Your task to perform on an android device: Open maps Image 0: 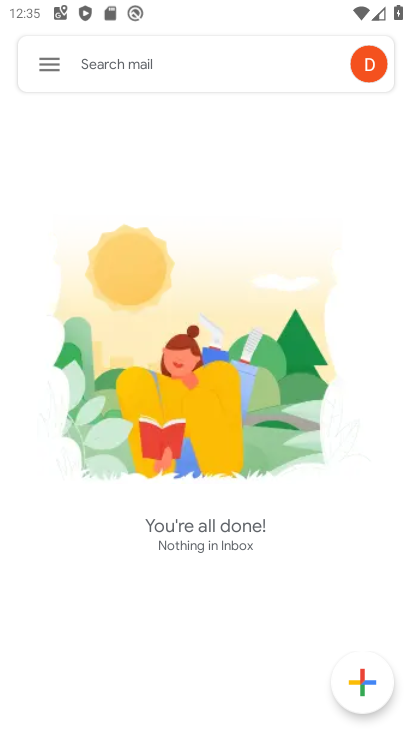
Step 0: press home button
Your task to perform on an android device: Open maps Image 1: 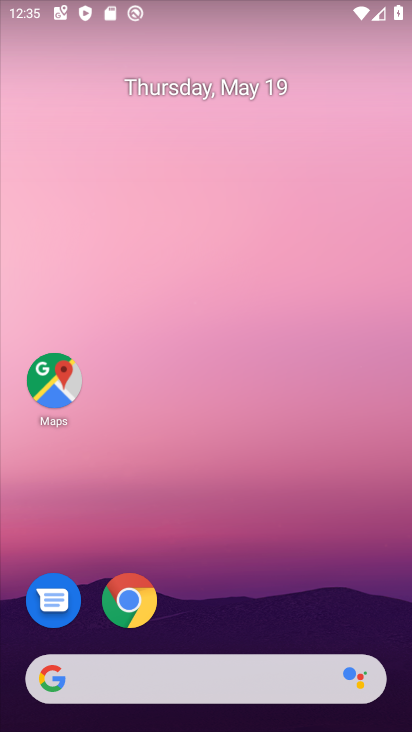
Step 1: click (52, 379)
Your task to perform on an android device: Open maps Image 2: 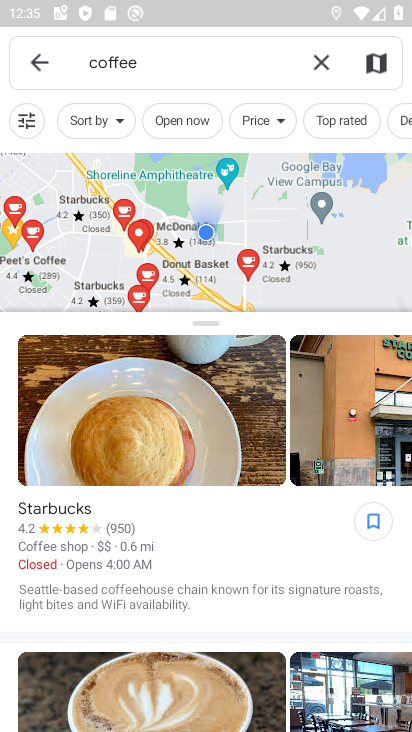
Step 2: click (321, 77)
Your task to perform on an android device: Open maps Image 3: 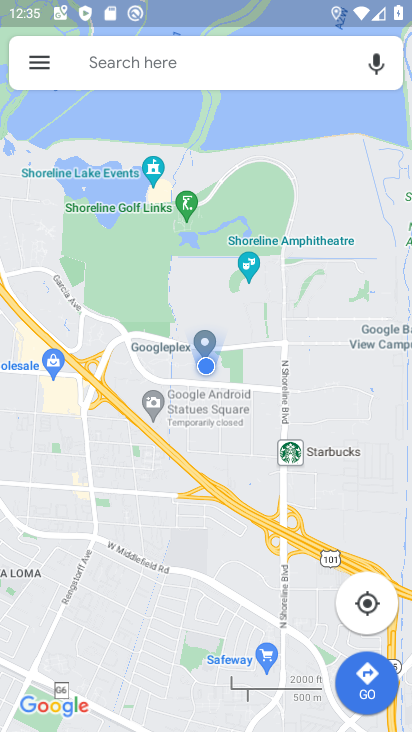
Step 3: task complete